Your task to perform on an android device: change the clock style Image 0: 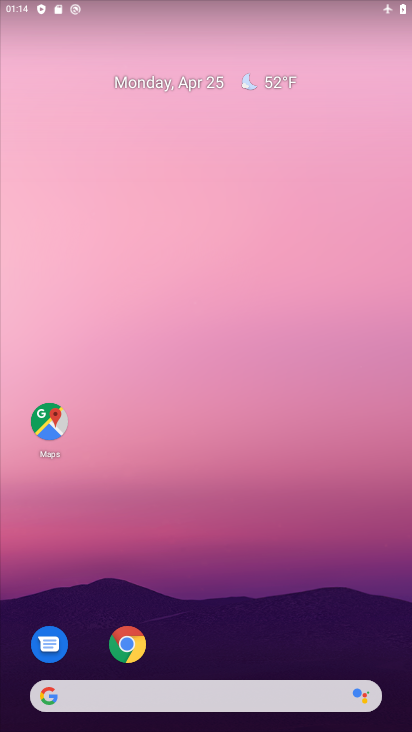
Step 0: drag from (272, 628) to (230, 222)
Your task to perform on an android device: change the clock style Image 1: 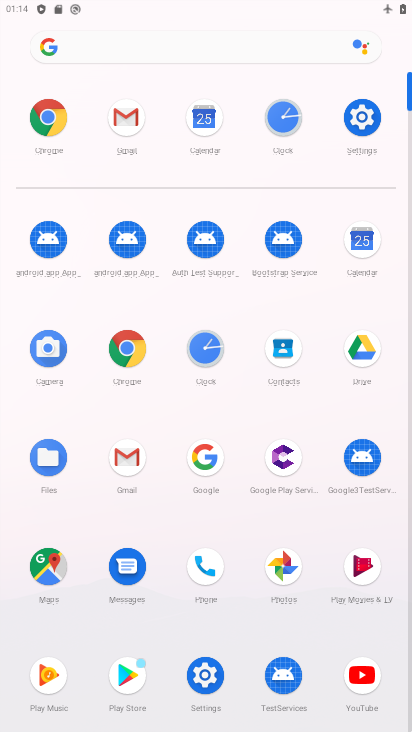
Step 1: click (274, 123)
Your task to perform on an android device: change the clock style Image 2: 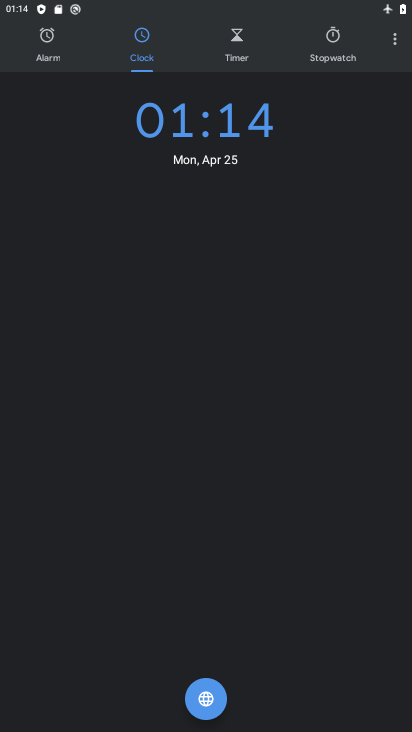
Step 2: click (390, 37)
Your task to perform on an android device: change the clock style Image 3: 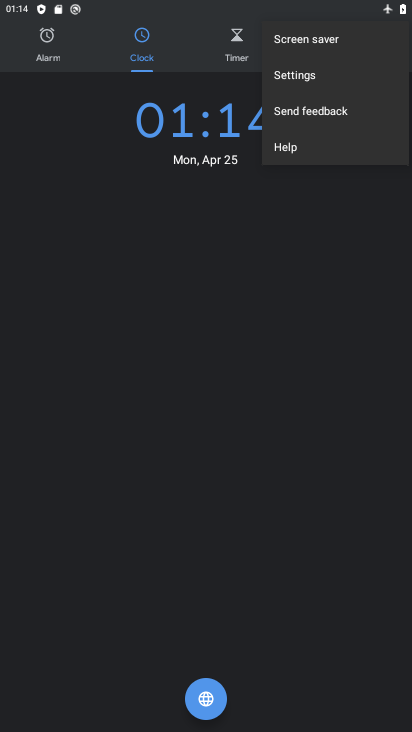
Step 3: click (300, 63)
Your task to perform on an android device: change the clock style Image 4: 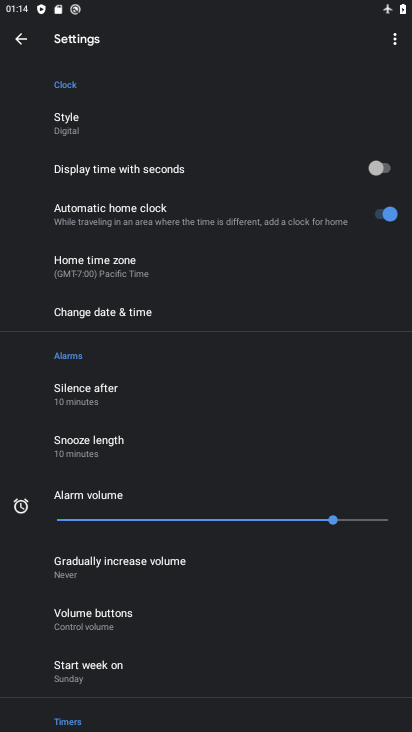
Step 4: click (175, 313)
Your task to perform on an android device: change the clock style Image 5: 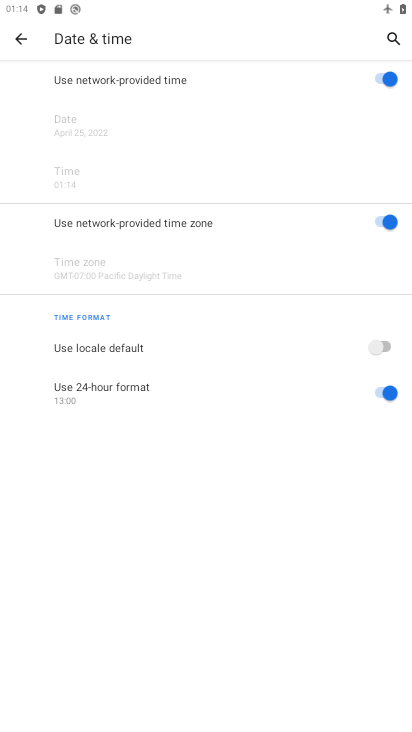
Step 5: click (25, 40)
Your task to perform on an android device: change the clock style Image 6: 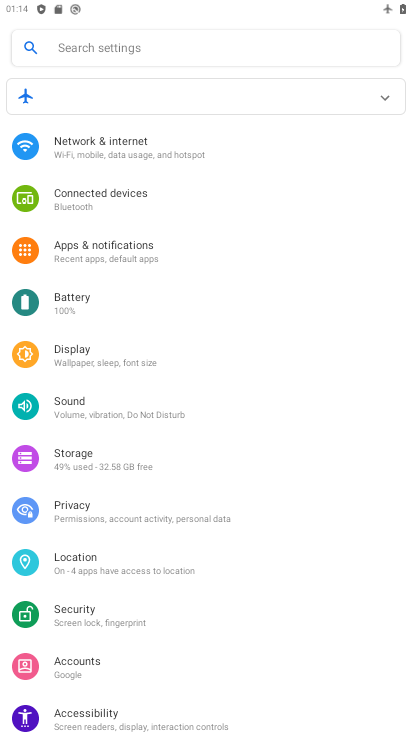
Step 6: press home button
Your task to perform on an android device: change the clock style Image 7: 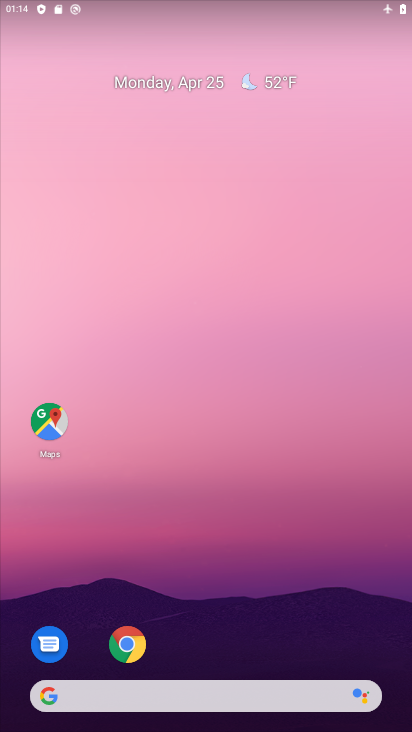
Step 7: drag from (265, 585) to (201, 216)
Your task to perform on an android device: change the clock style Image 8: 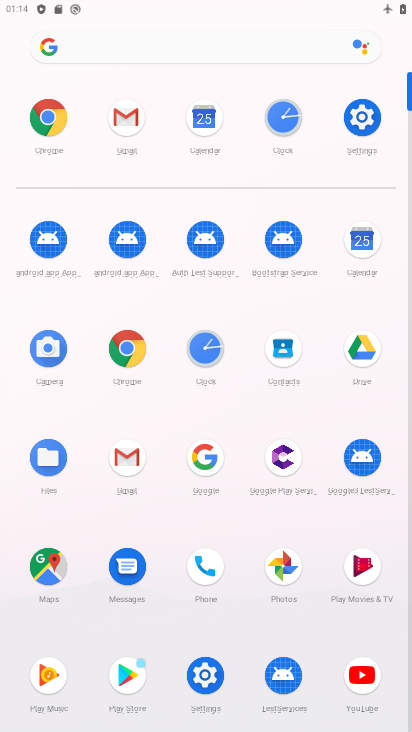
Step 8: click (284, 121)
Your task to perform on an android device: change the clock style Image 9: 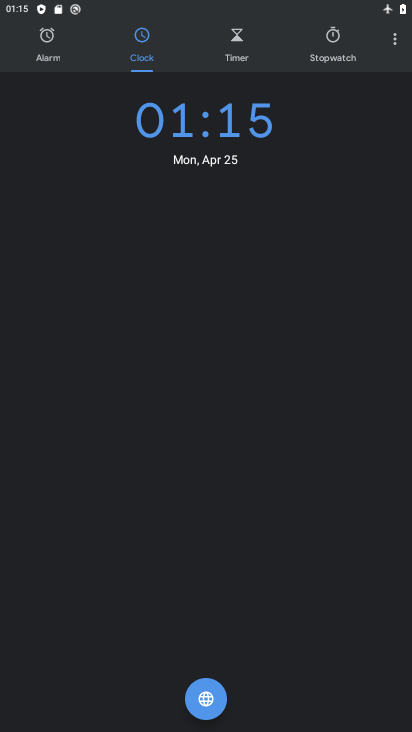
Step 9: click (388, 46)
Your task to perform on an android device: change the clock style Image 10: 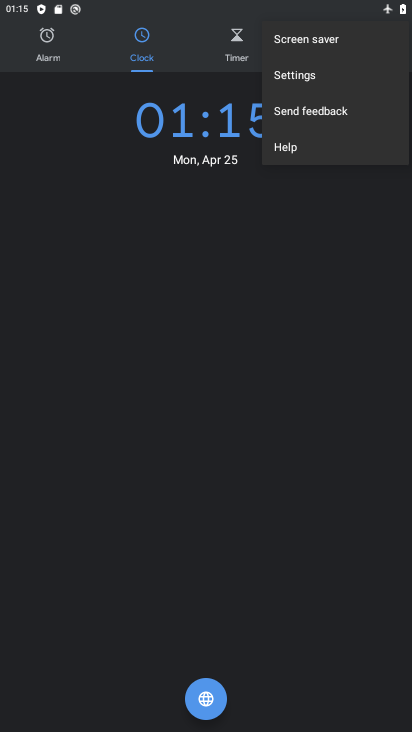
Step 10: click (343, 70)
Your task to perform on an android device: change the clock style Image 11: 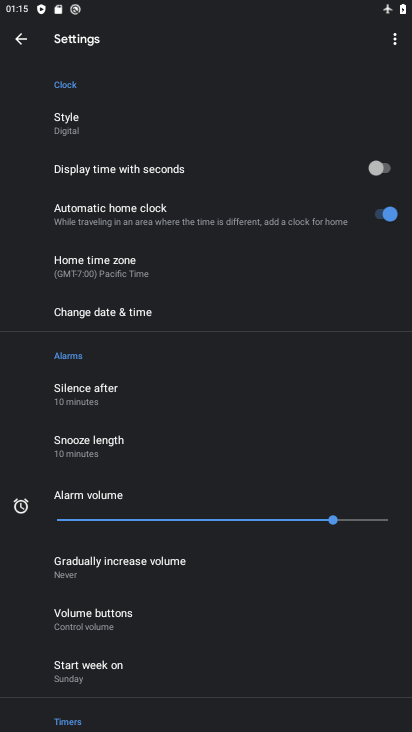
Step 11: click (146, 132)
Your task to perform on an android device: change the clock style Image 12: 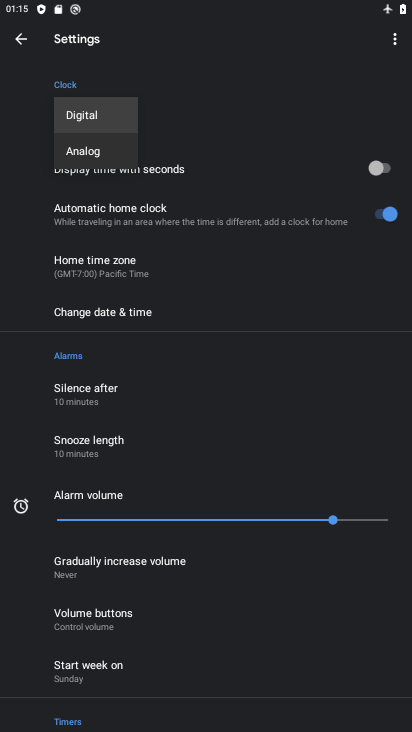
Step 12: click (131, 153)
Your task to perform on an android device: change the clock style Image 13: 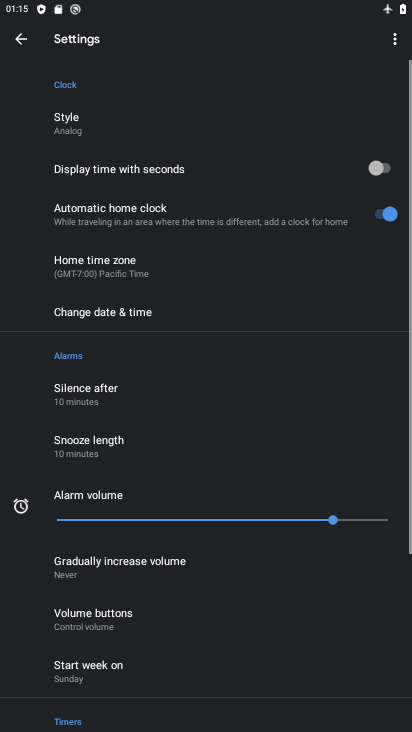
Step 13: click (103, 153)
Your task to perform on an android device: change the clock style Image 14: 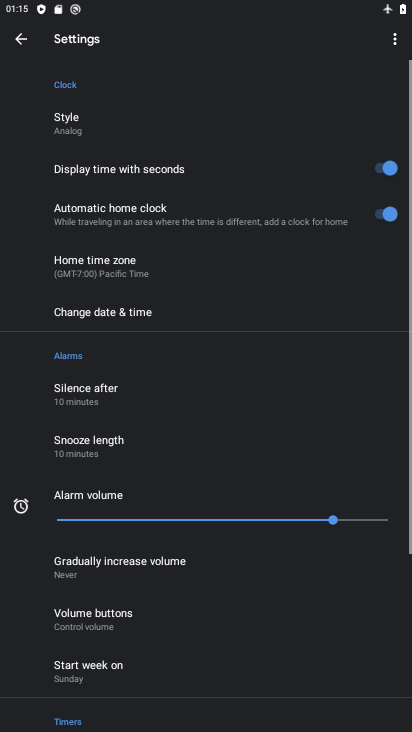
Step 14: task complete